Your task to perform on an android device: check the backup settings in the google photos Image 0: 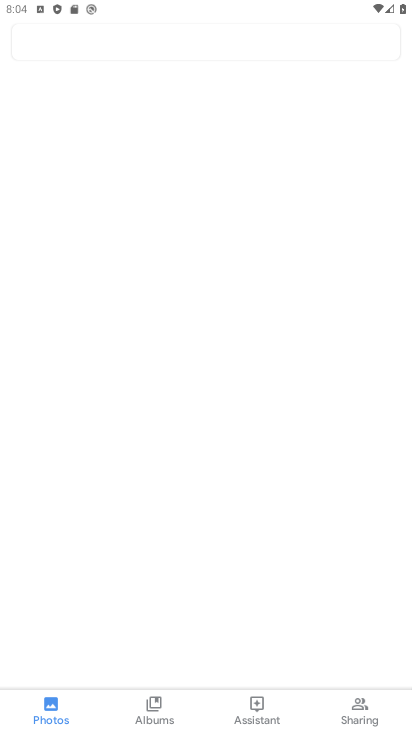
Step 0: drag from (205, 661) to (214, 130)
Your task to perform on an android device: check the backup settings in the google photos Image 1: 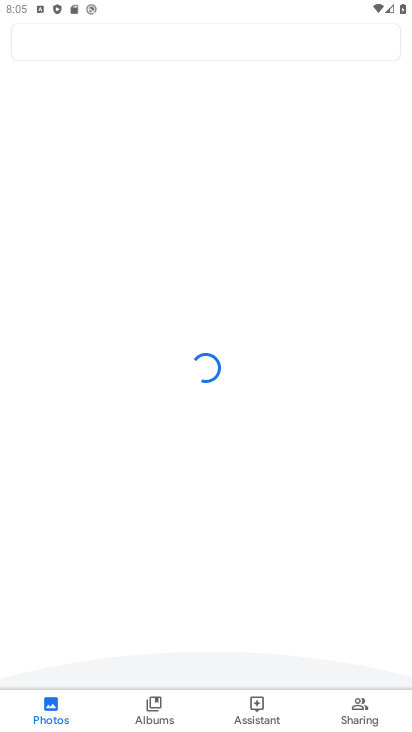
Step 1: press home button
Your task to perform on an android device: check the backup settings in the google photos Image 2: 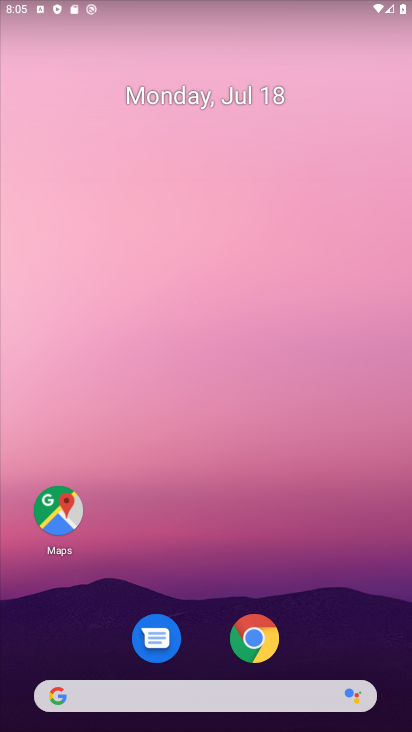
Step 2: drag from (195, 651) to (199, 157)
Your task to perform on an android device: check the backup settings in the google photos Image 3: 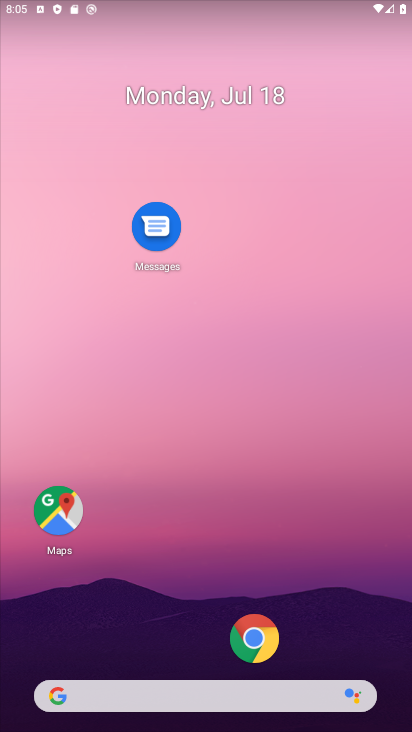
Step 3: drag from (230, 210) to (259, 14)
Your task to perform on an android device: check the backup settings in the google photos Image 4: 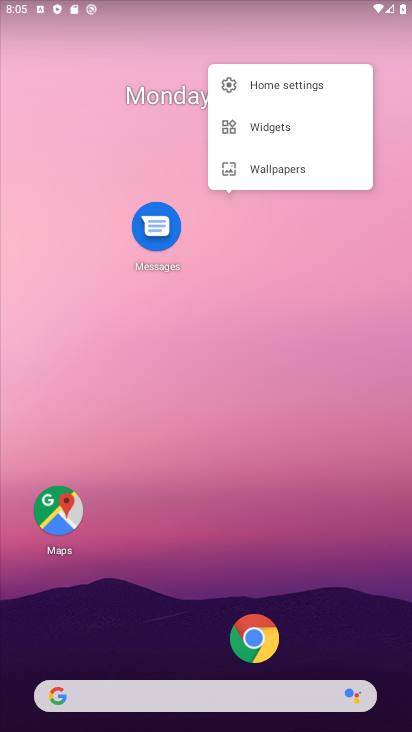
Step 4: drag from (171, 646) to (256, 70)
Your task to perform on an android device: check the backup settings in the google photos Image 5: 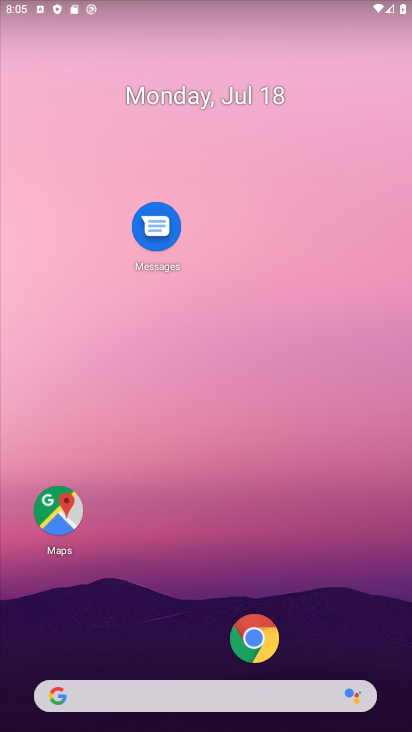
Step 5: click (314, 87)
Your task to perform on an android device: check the backup settings in the google photos Image 6: 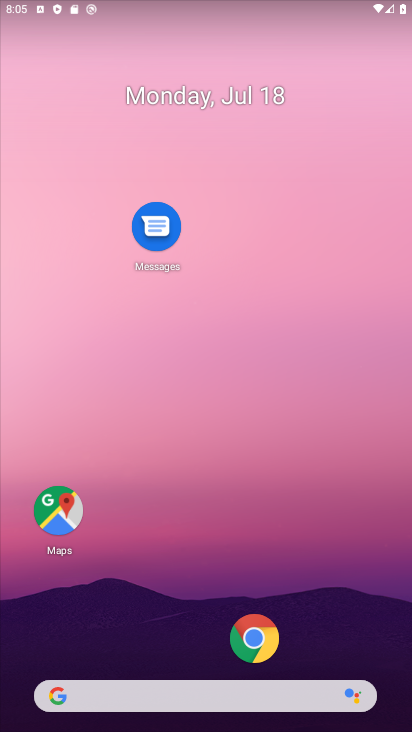
Step 6: drag from (212, 640) to (241, 8)
Your task to perform on an android device: check the backup settings in the google photos Image 7: 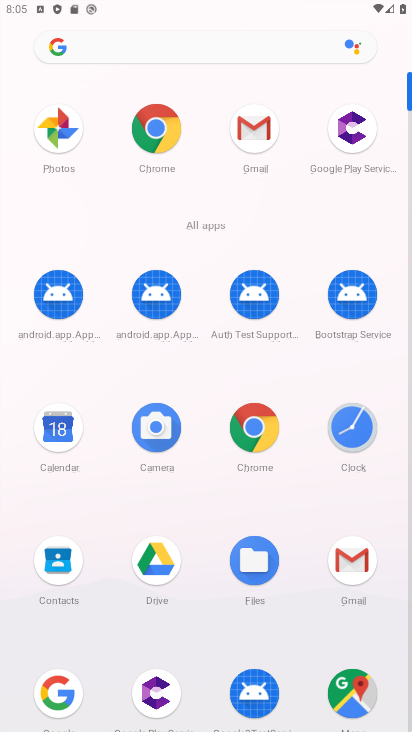
Step 7: click (59, 138)
Your task to perform on an android device: check the backup settings in the google photos Image 8: 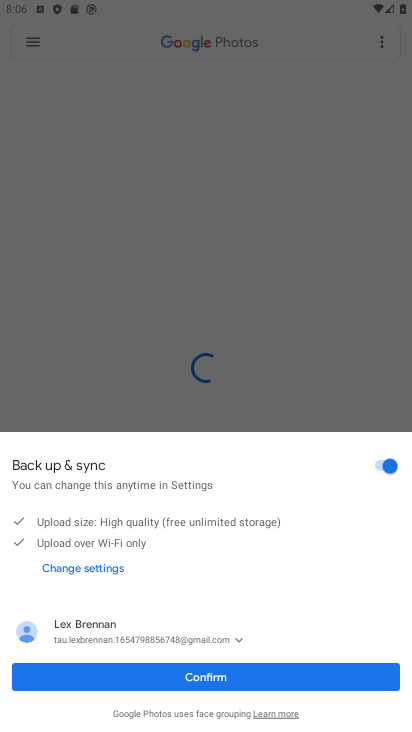
Step 8: click (235, 676)
Your task to perform on an android device: check the backup settings in the google photos Image 9: 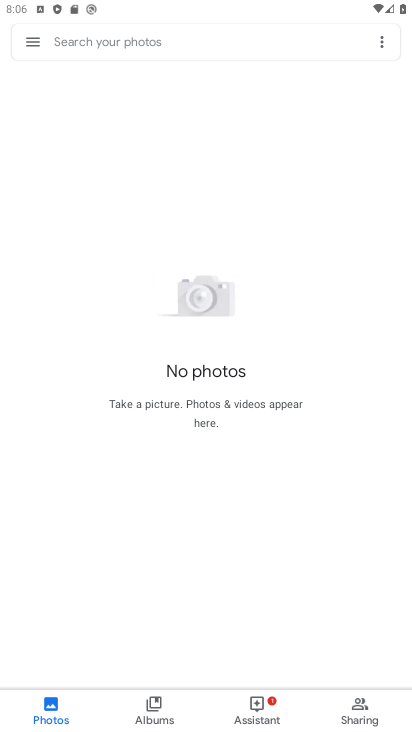
Step 9: click (32, 39)
Your task to perform on an android device: check the backup settings in the google photos Image 10: 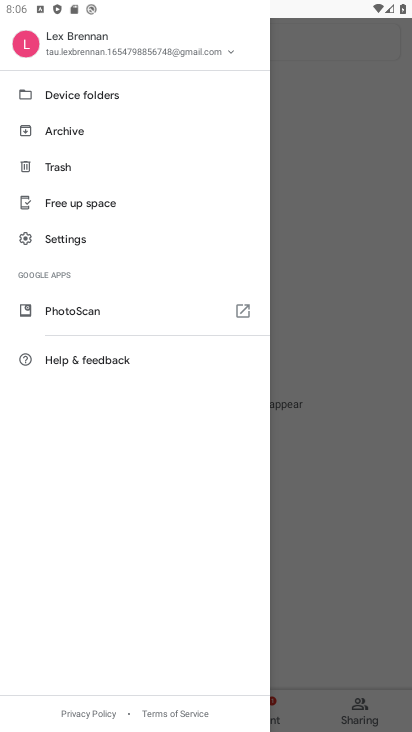
Step 10: click (77, 243)
Your task to perform on an android device: check the backup settings in the google photos Image 11: 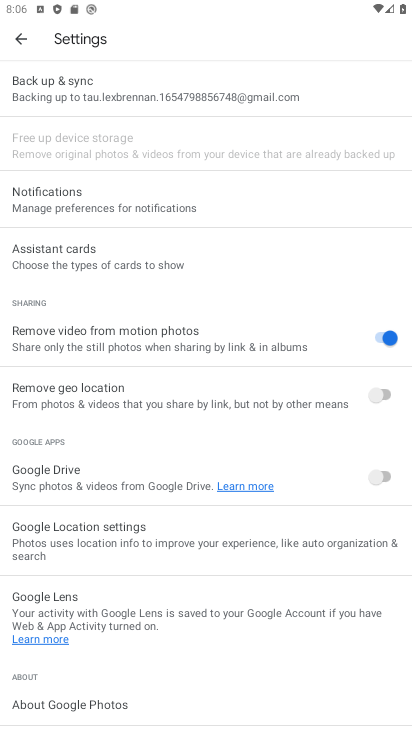
Step 11: click (88, 78)
Your task to perform on an android device: check the backup settings in the google photos Image 12: 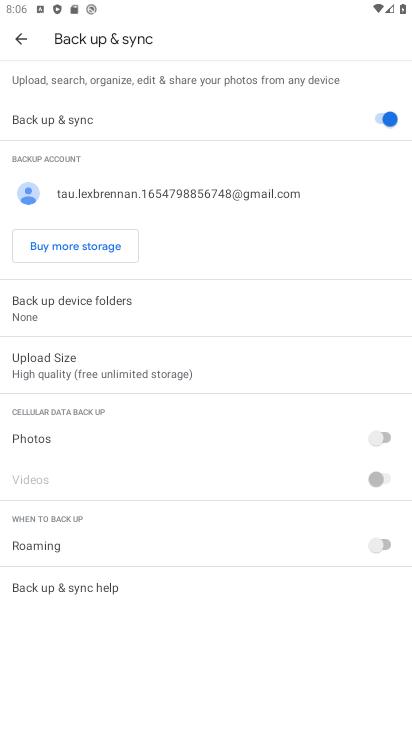
Step 12: task complete